Your task to perform on an android device: What is the news today? Image 0: 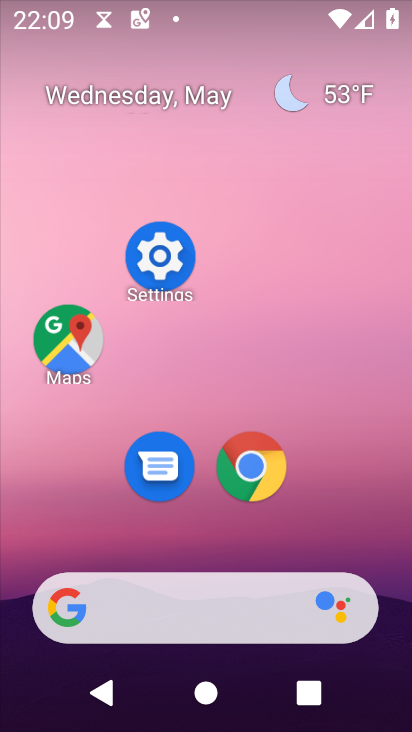
Step 0: drag from (233, 557) to (237, 236)
Your task to perform on an android device: What is the news today? Image 1: 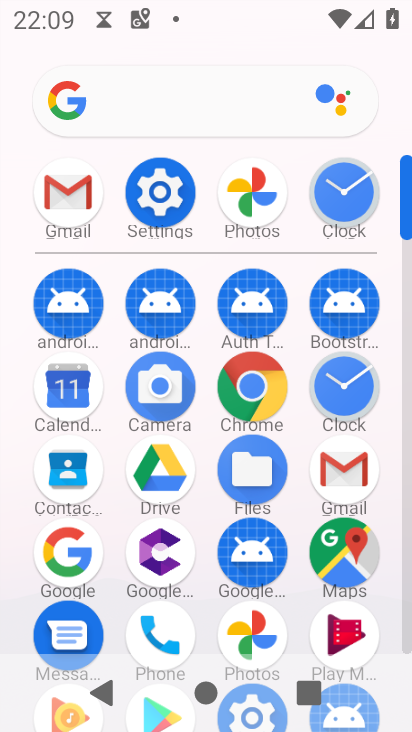
Step 1: click (241, 112)
Your task to perform on an android device: What is the news today? Image 2: 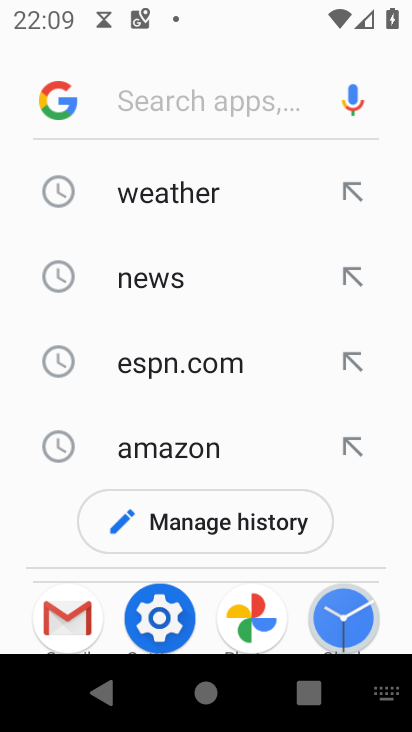
Step 2: type "news today"
Your task to perform on an android device: What is the news today? Image 3: 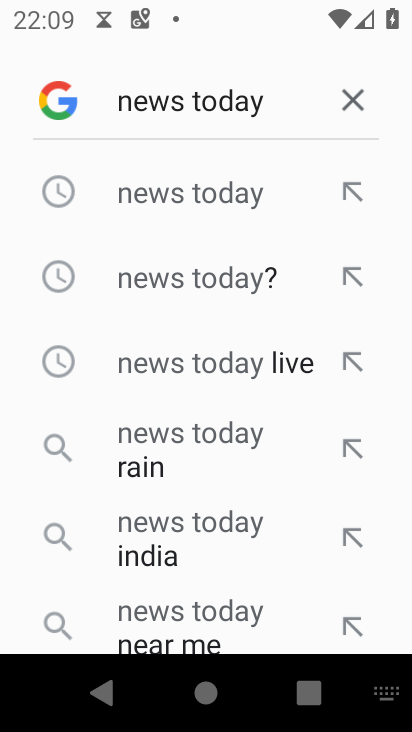
Step 3: click (220, 259)
Your task to perform on an android device: What is the news today? Image 4: 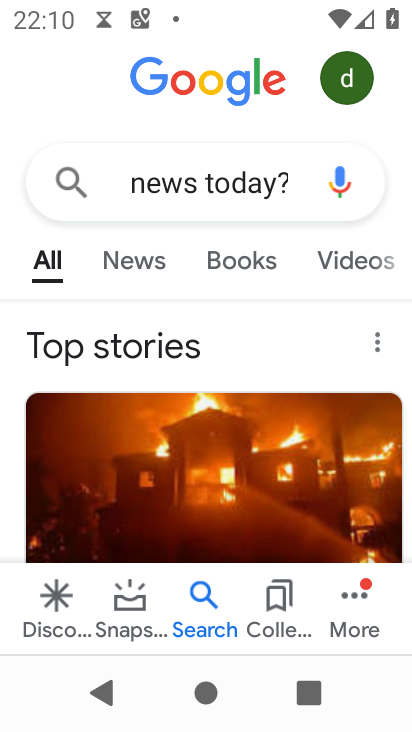
Step 4: task complete